Your task to perform on an android device: uninstall "PUBG MOBILE" Image 0: 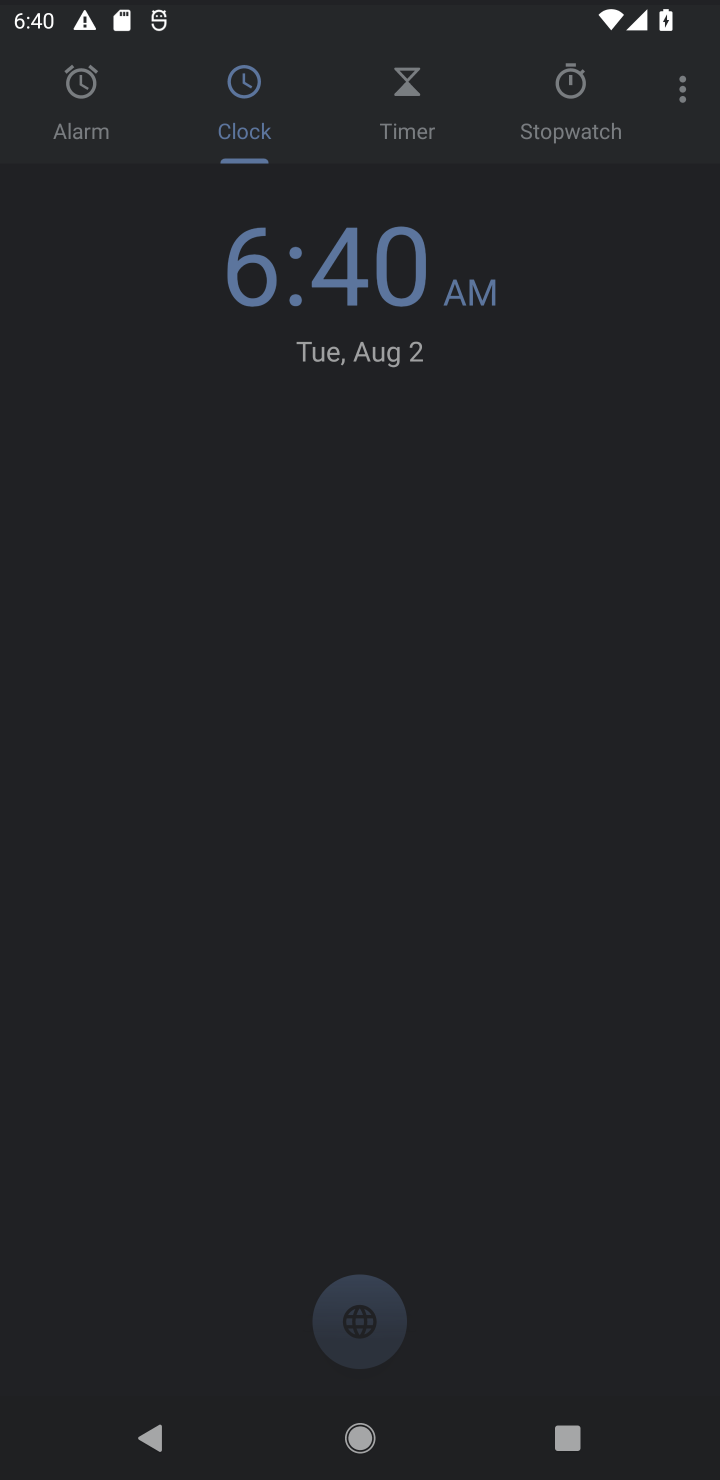
Step 0: click (72, 77)
Your task to perform on an android device: uninstall "PUBG MOBILE" Image 1: 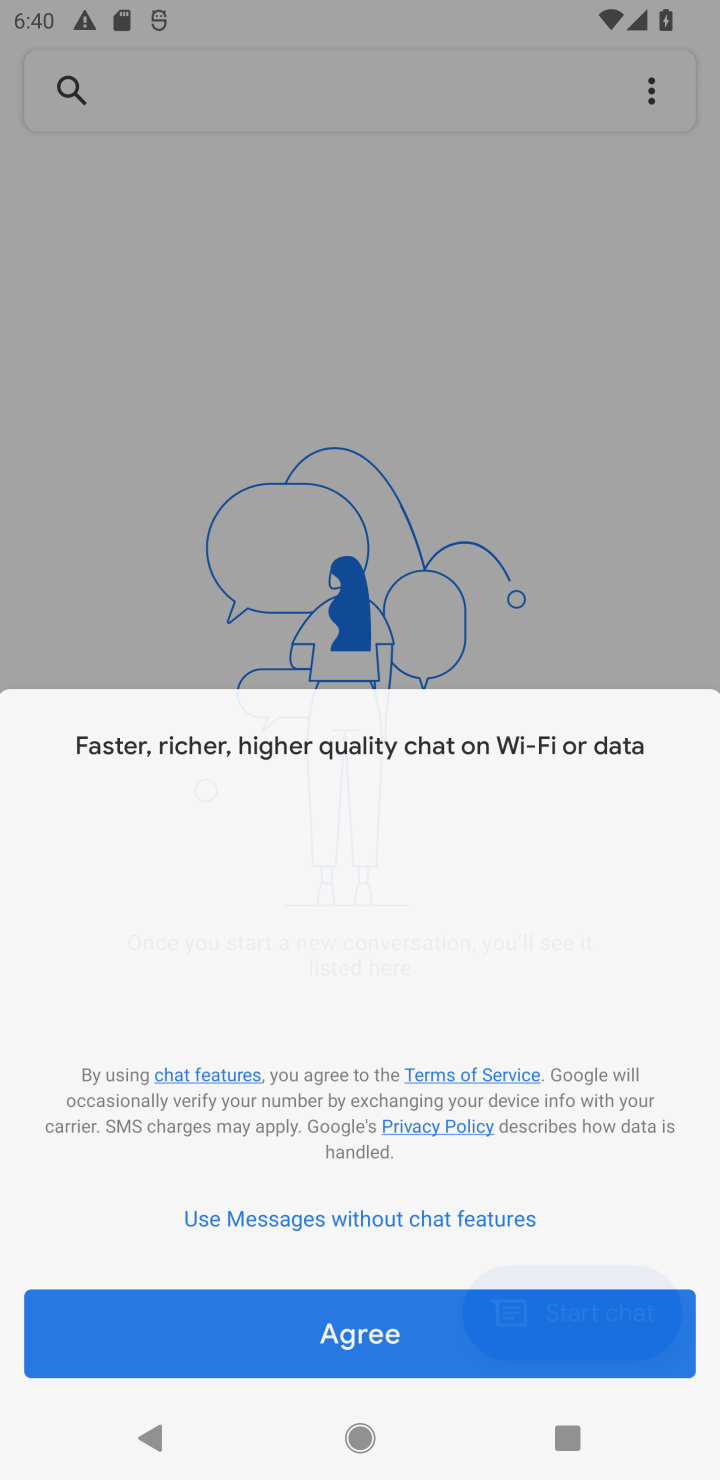
Step 1: press back button
Your task to perform on an android device: uninstall "PUBG MOBILE" Image 2: 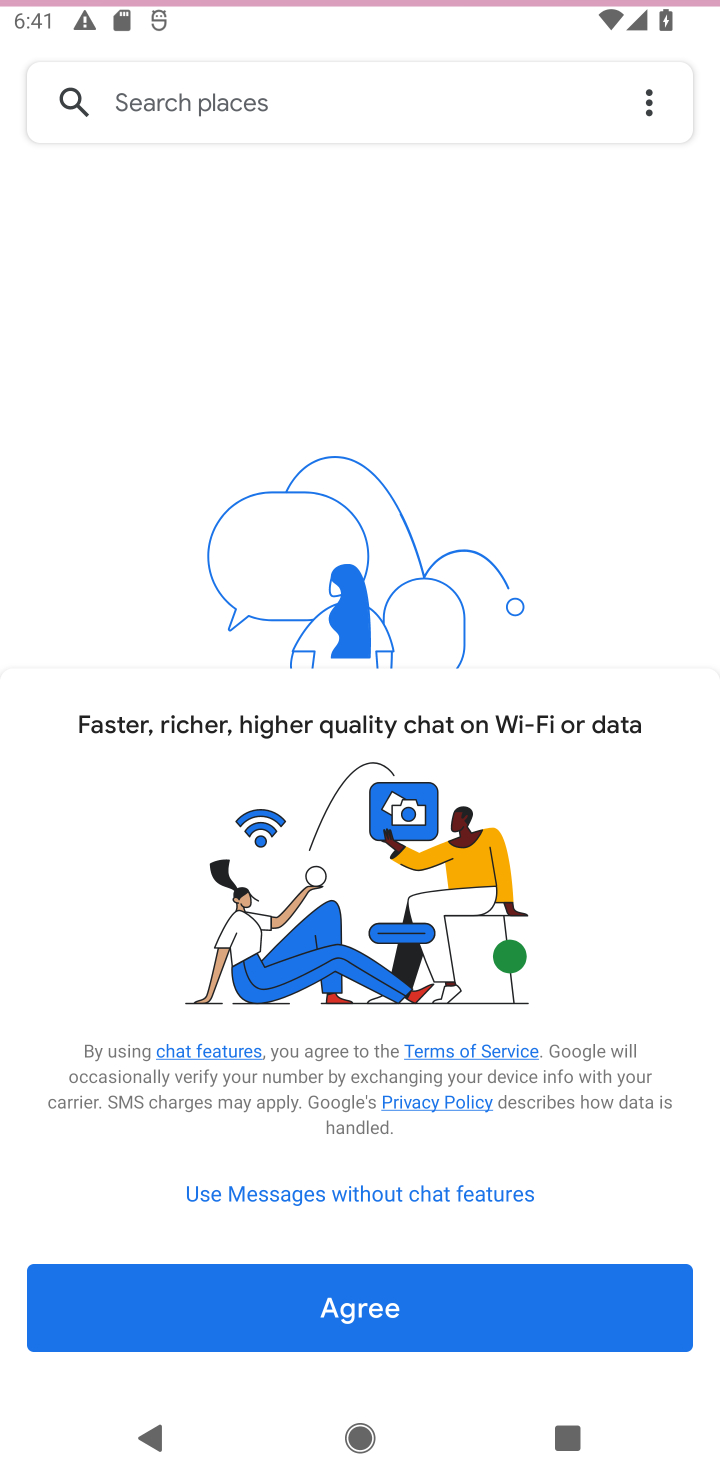
Step 2: press back button
Your task to perform on an android device: uninstall "PUBG MOBILE" Image 3: 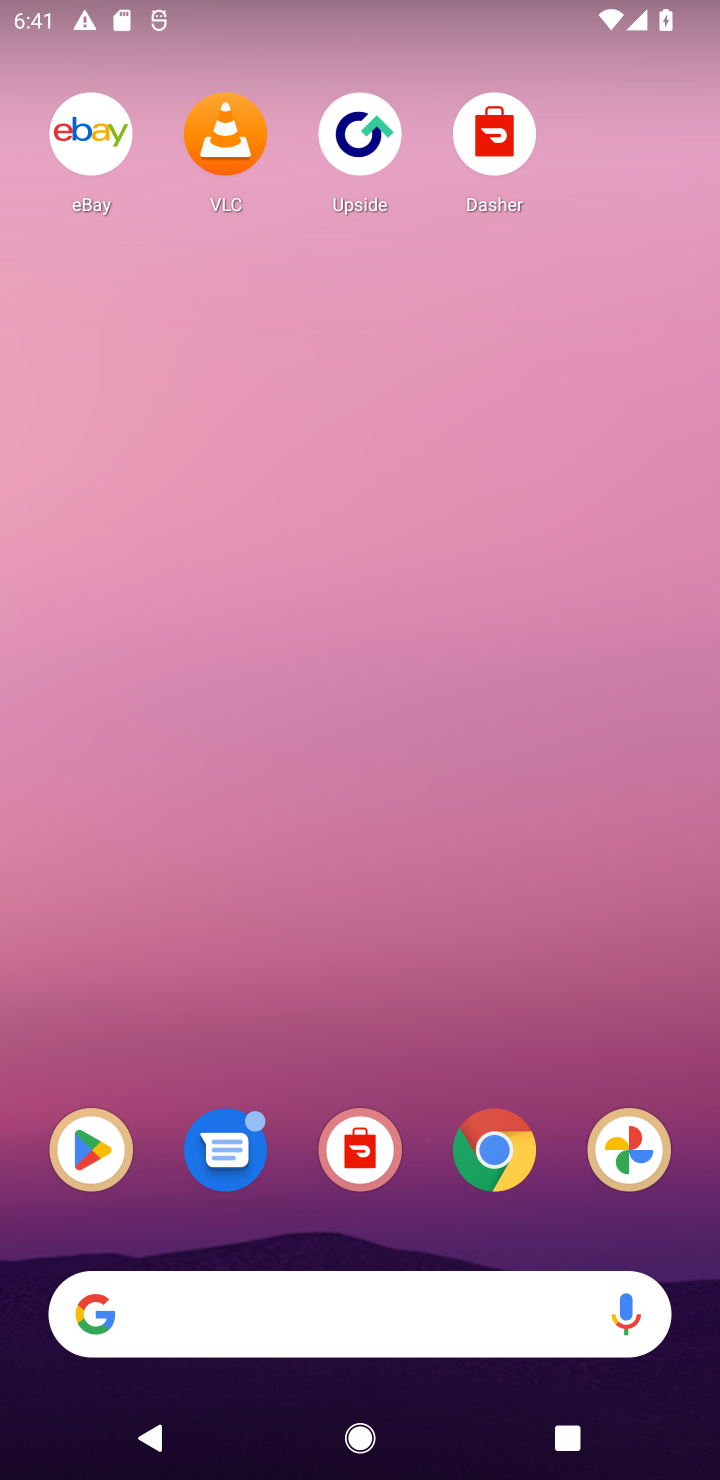
Step 3: press back button
Your task to perform on an android device: uninstall "PUBG MOBILE" Image 4: 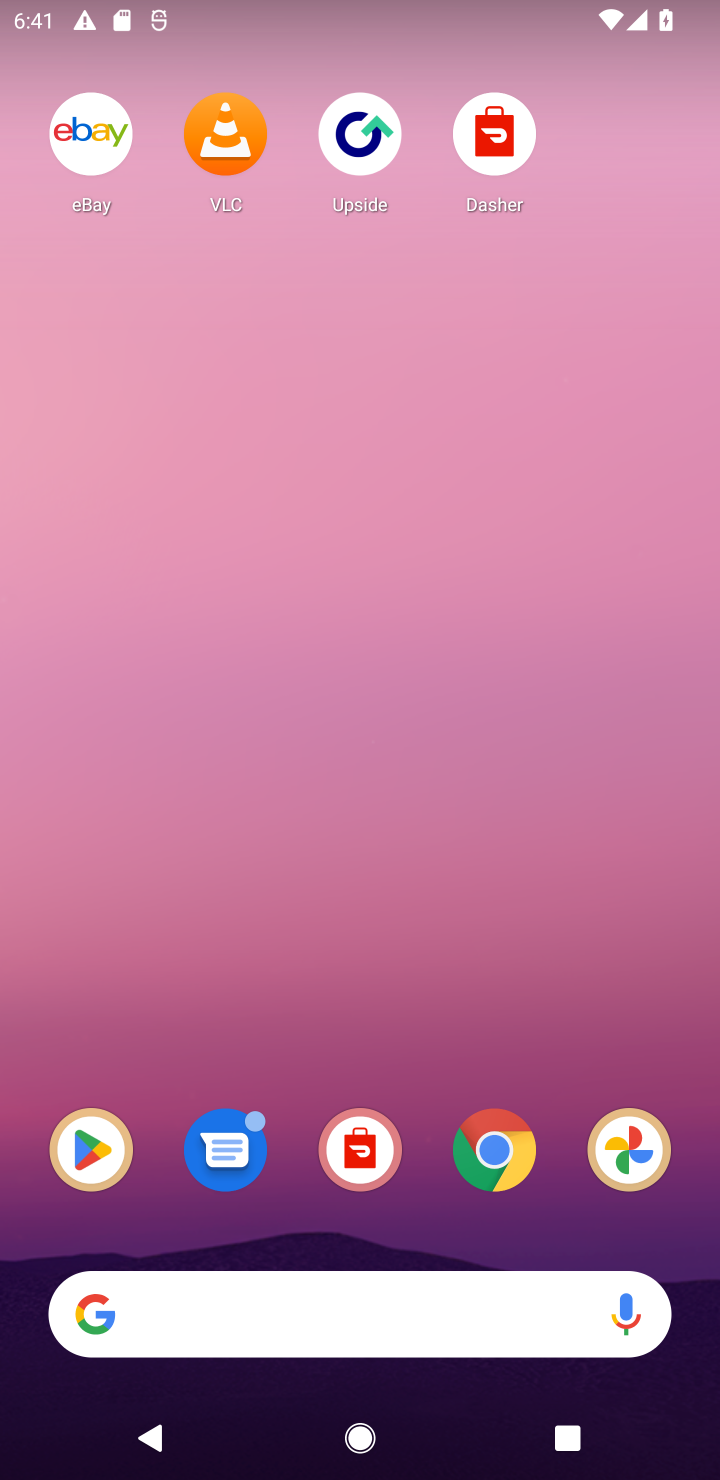
Step 4: click (107, 1178)
Your task to perform on an android device: uninstall "PUBG MOBILE" Image 5: 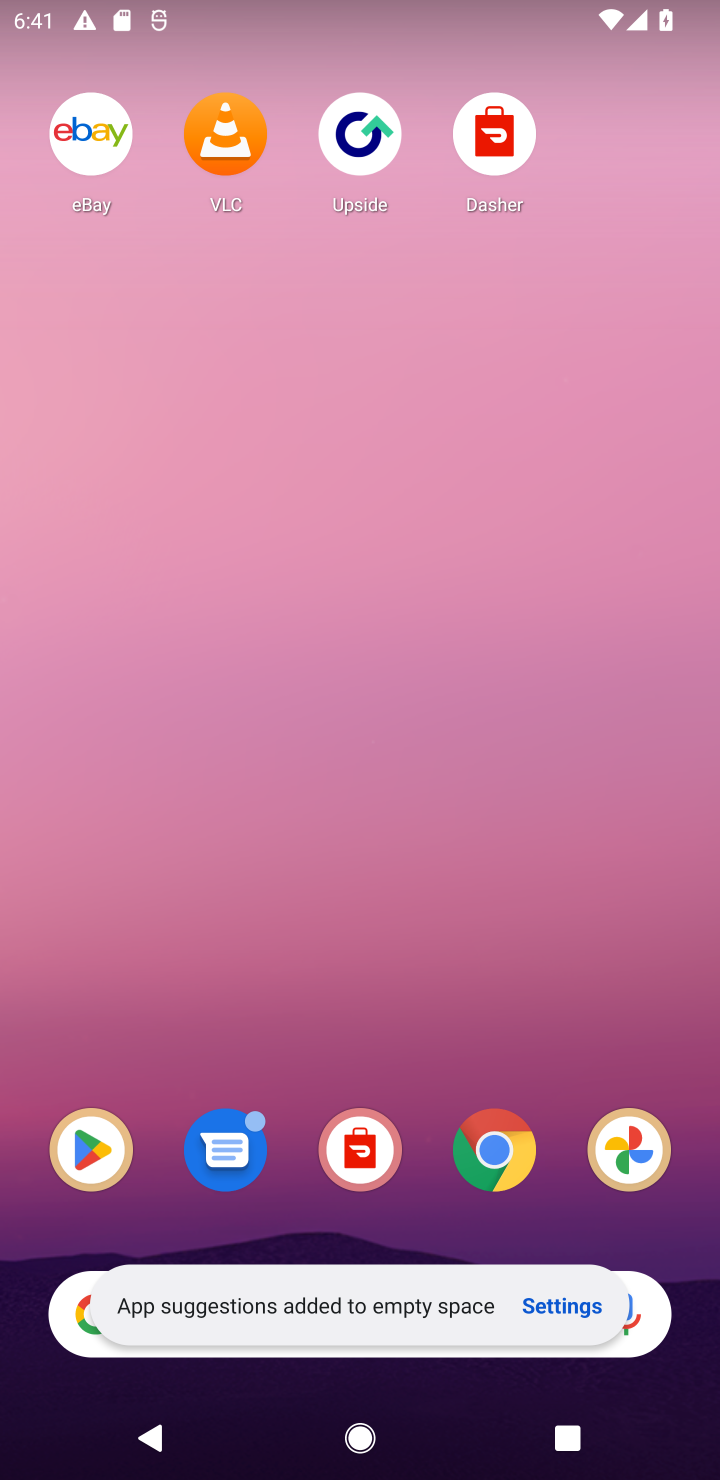
Step 5: click (93, 1159)
Your task to perform on an android device: uninstall "PUBG MOBILE" Image 6: 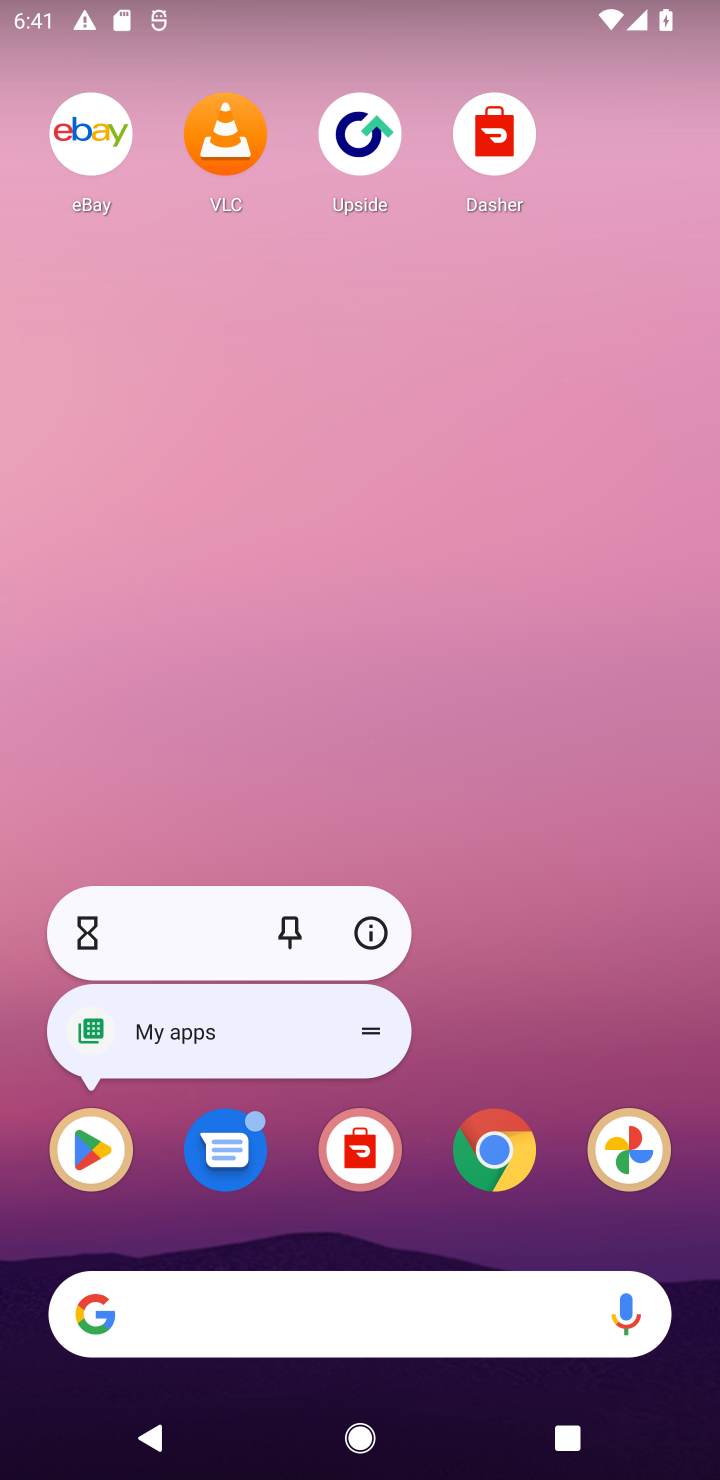
Step 6: click (92, 1157)
Your task to perform on an android device: uninstall "PUBG MOBILE" Image 7: 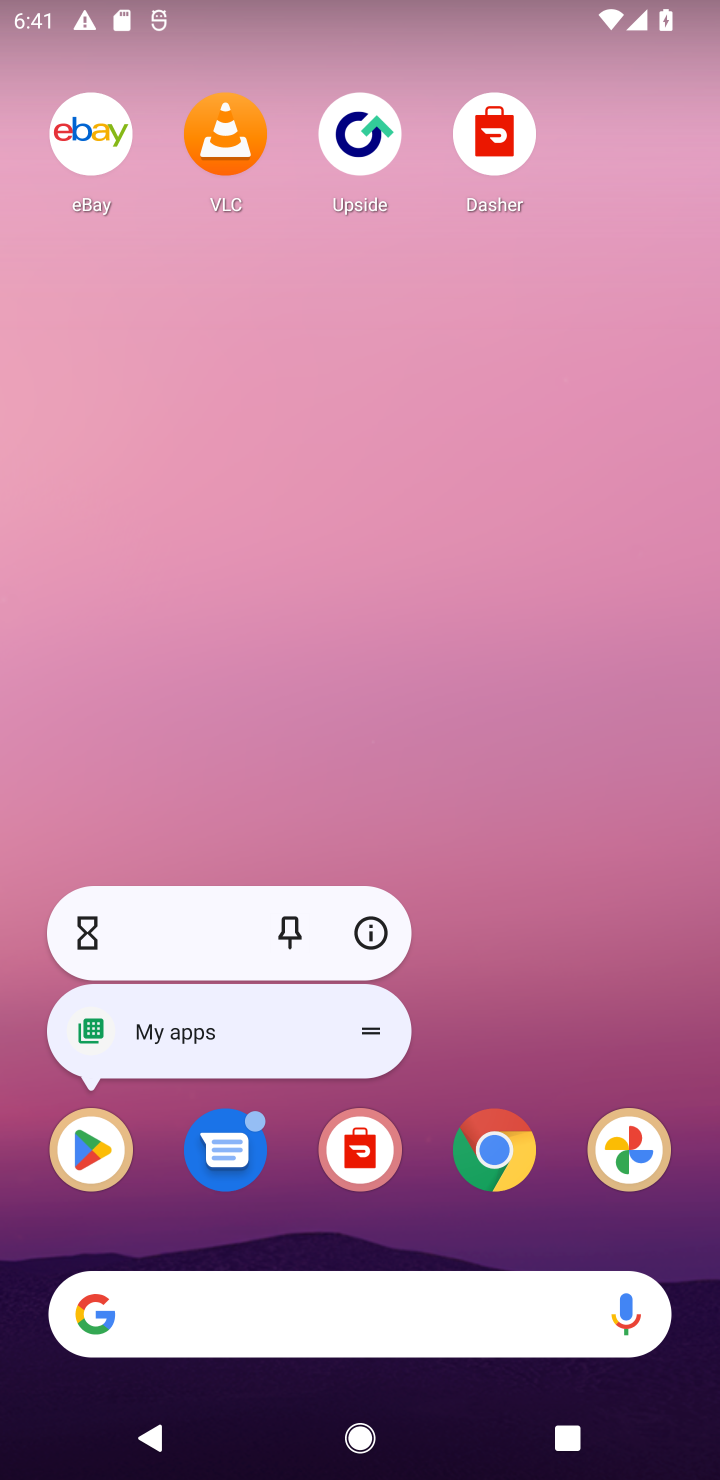
Step 7: click (88, 1150)
Your task to perform on an android device: uninstall "PUBG MOBILE" Image 8: 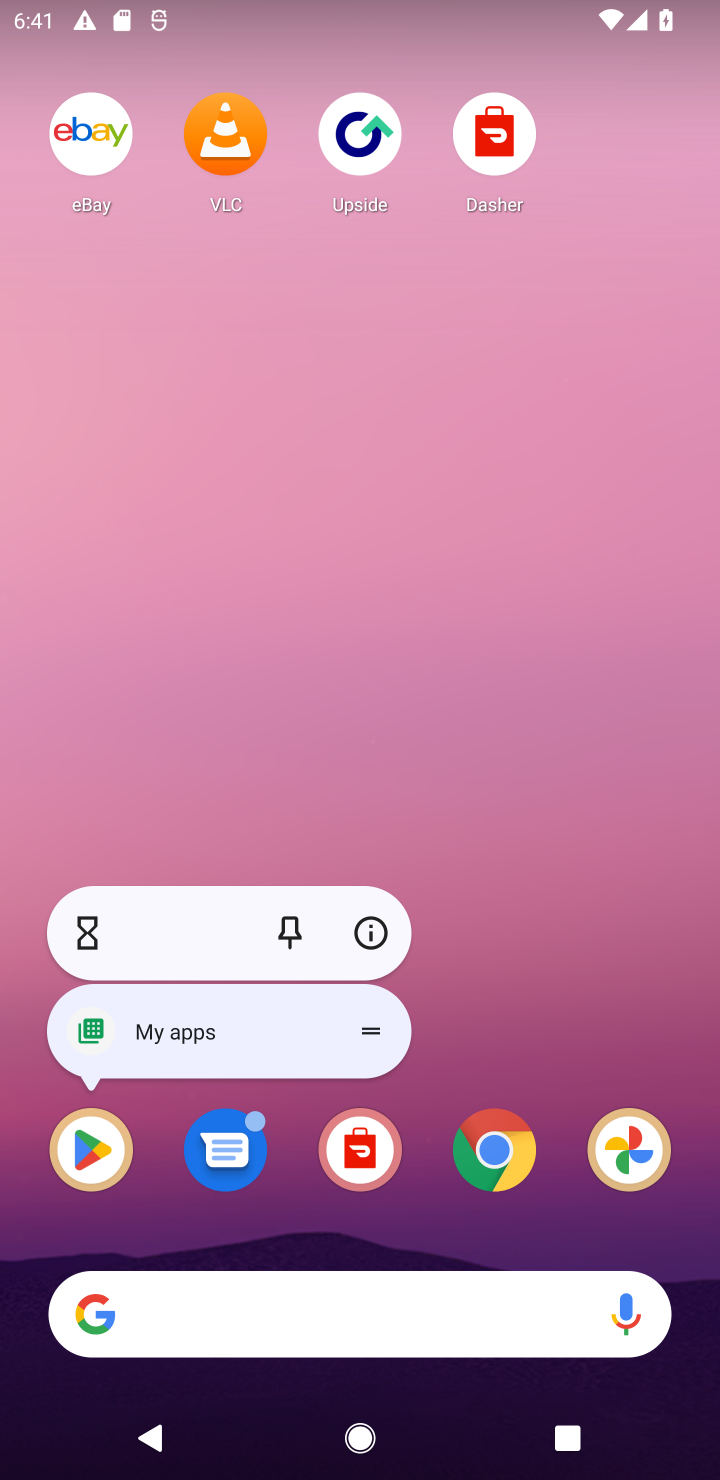
Step 8: click (80, 1147)
Your task to perform on an android device: uninstall "PUBG MOBILE" Image 9: 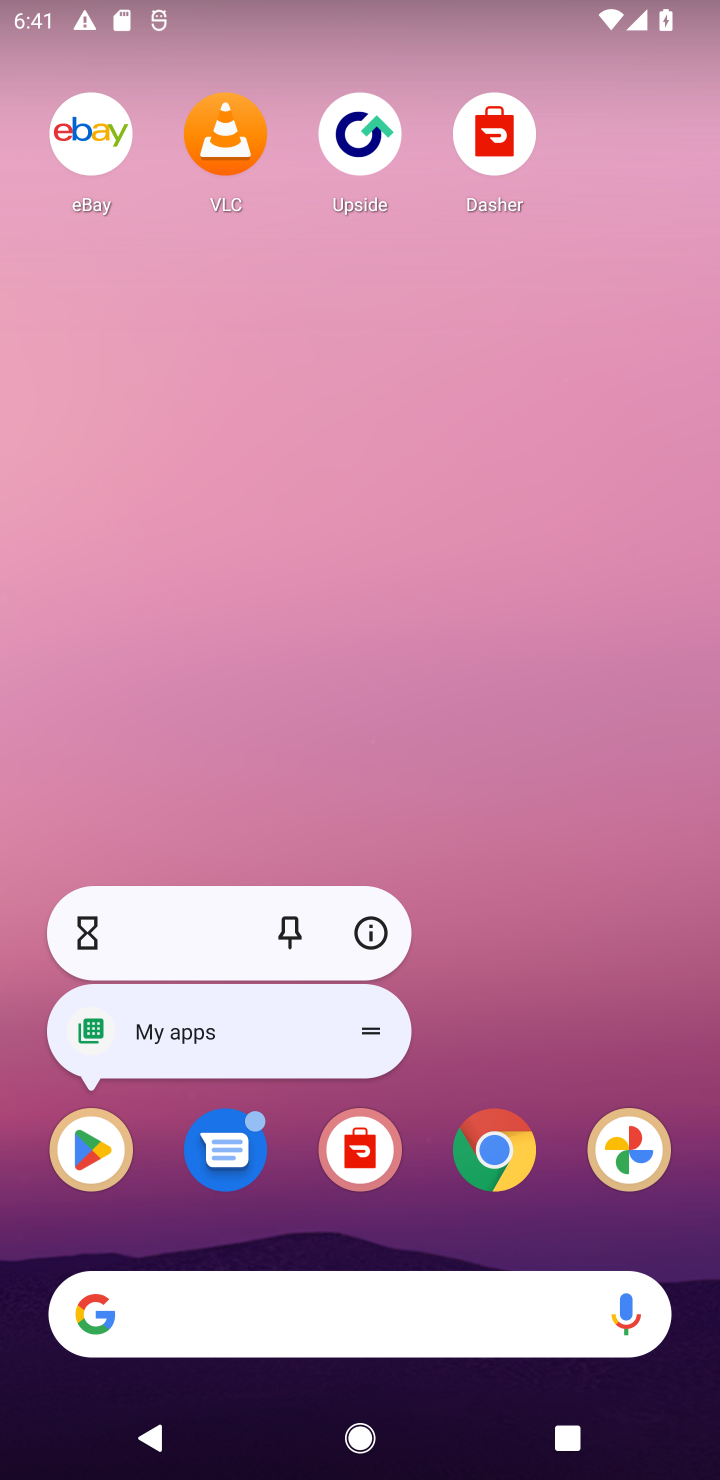
Step 9: click (80, 1147)
Your task to perform on an android device: uninstall "PUBG MOBILE" Image 10: 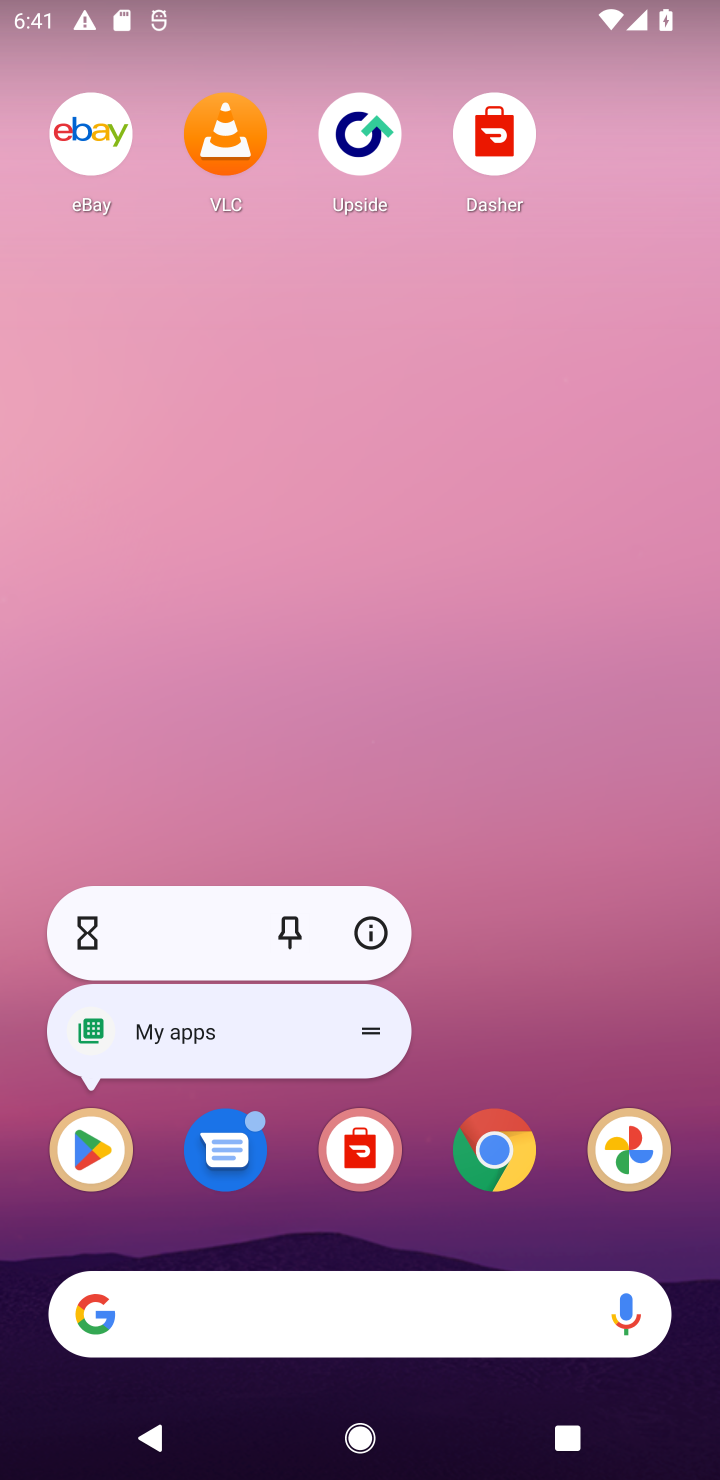
Step 10: click (80, 1147)
Your task to perform on an android device: uninstall "PUBG MOBILE" Image 11: 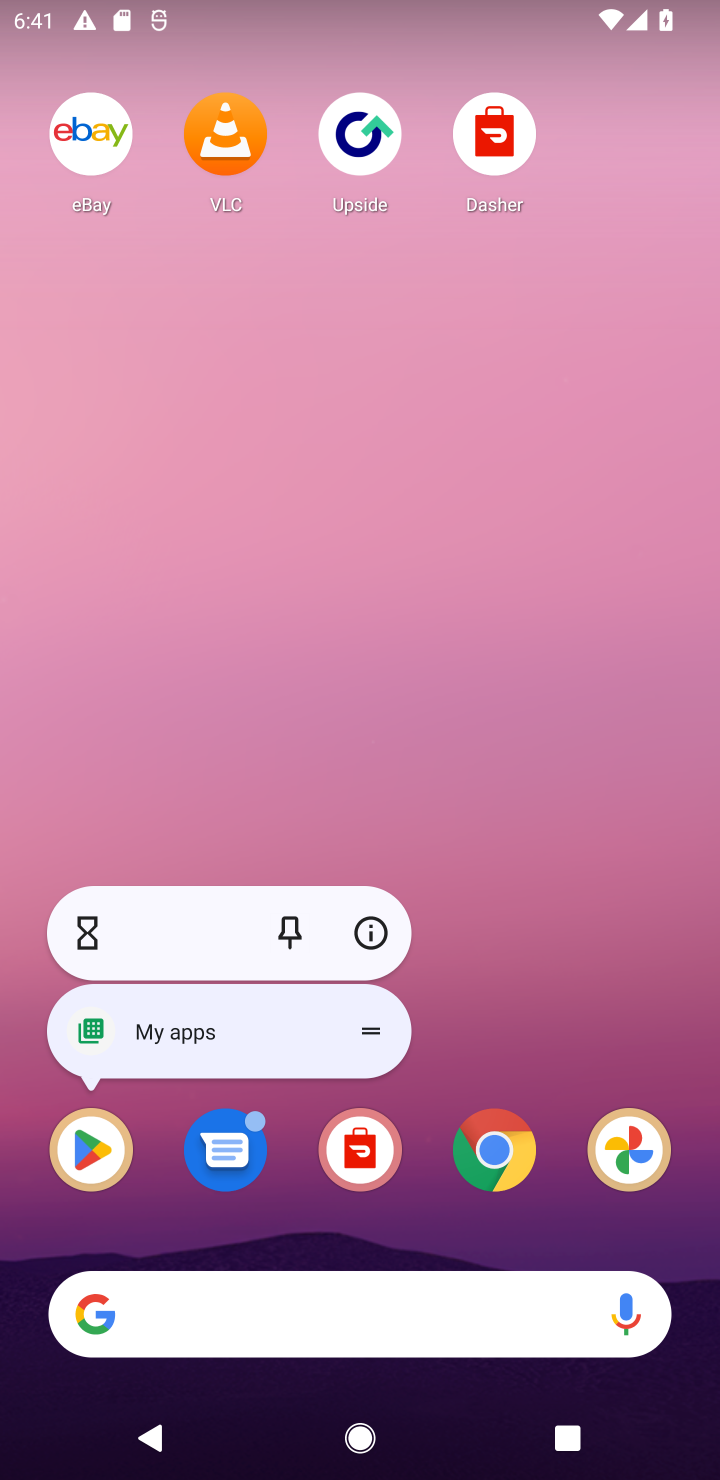
Step 11: click (78, 1149)
Your task to perform on an android device: uninstall "PUBG MOBILE" Image 12: 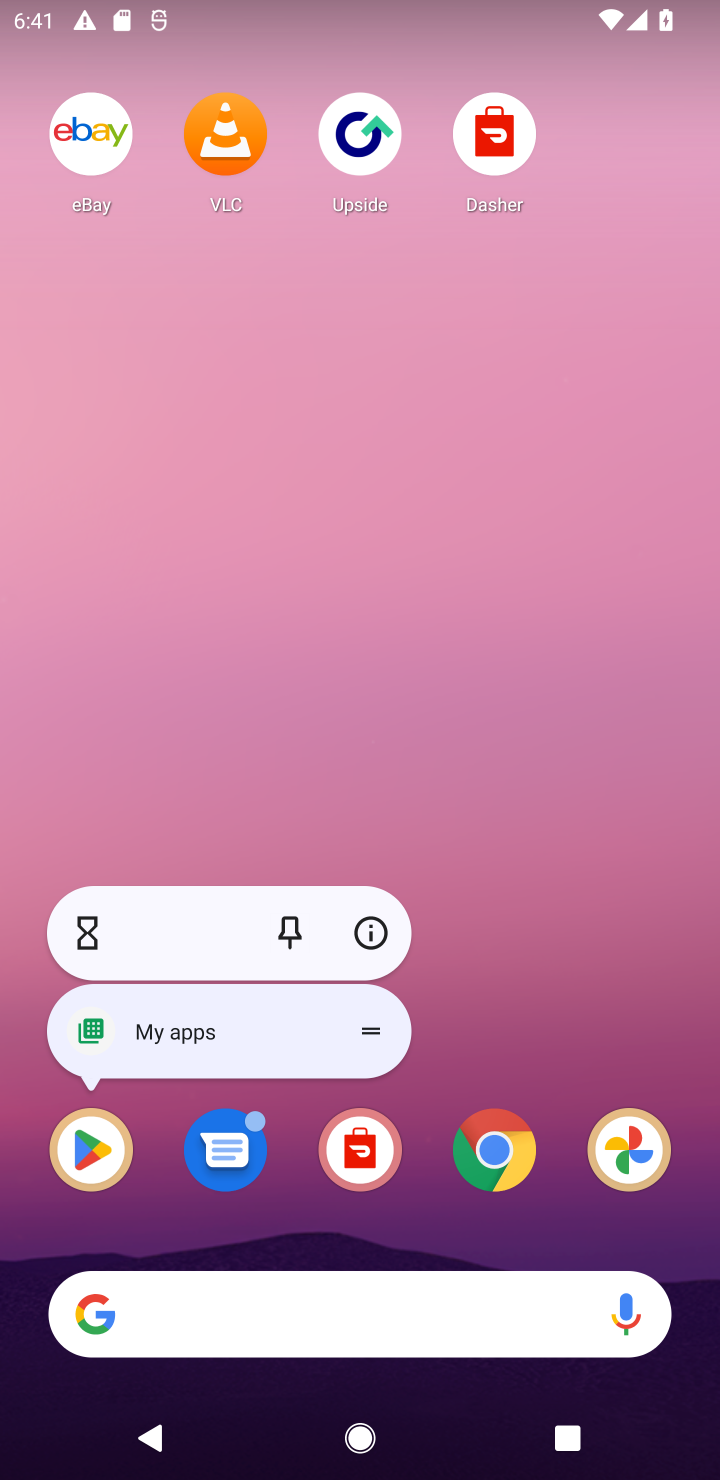
Step 12: click (47, 1127)
Your task to perform on an android device: uninstall "PUBG MOBILE" Image 13: 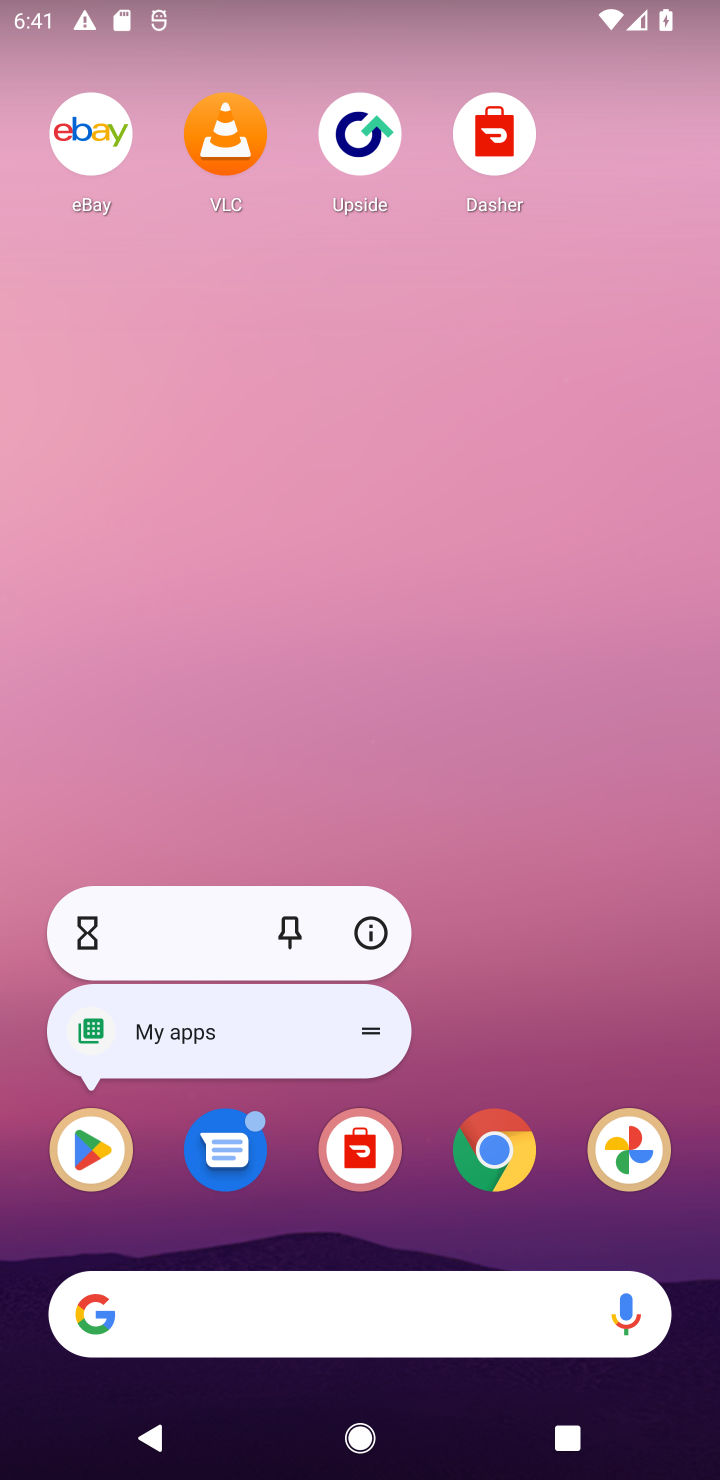
Step 13: click (71, 1145)
Your task to perform on an android device: uninstall "PUBG MOBILE" Image 14: 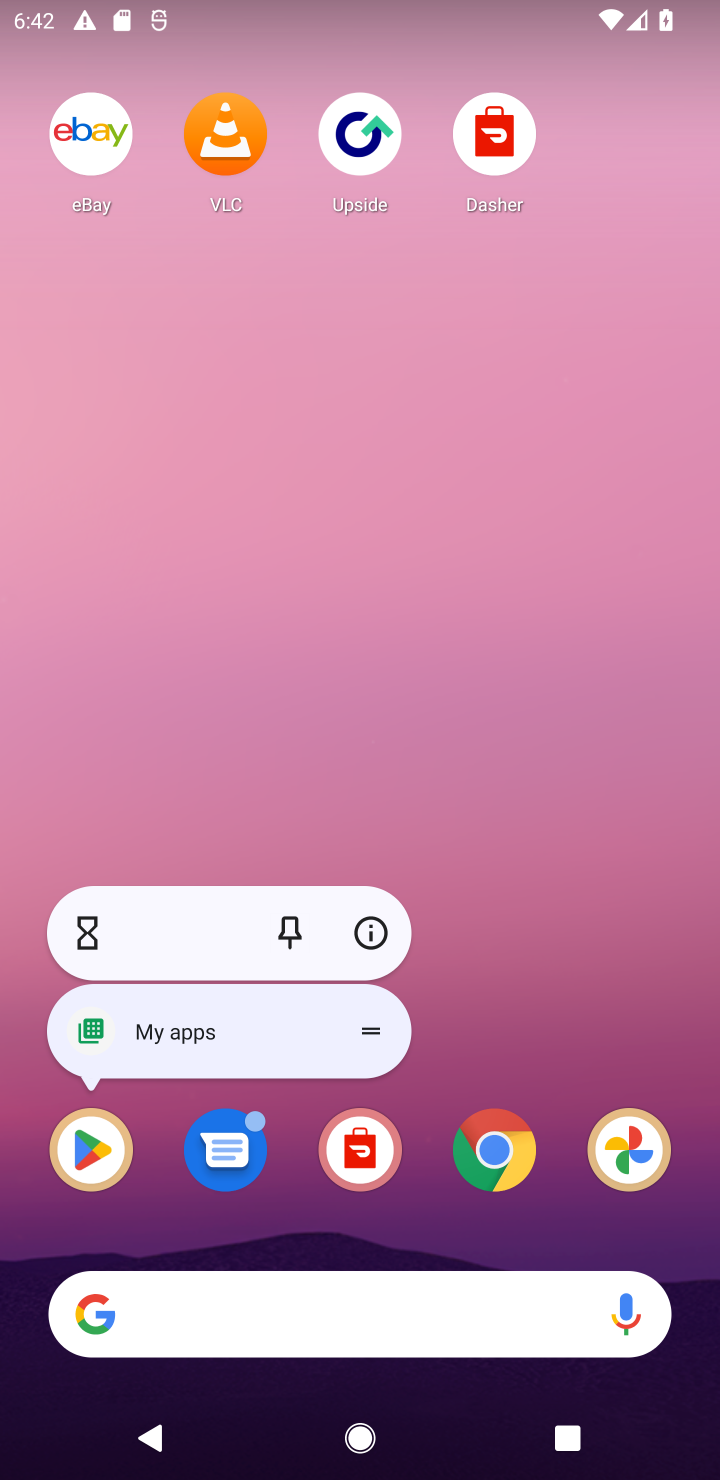
Step 14: click (60, 1149)
Your task to perform on an android device: uninstall "PUBG MOBILE" Image 15: 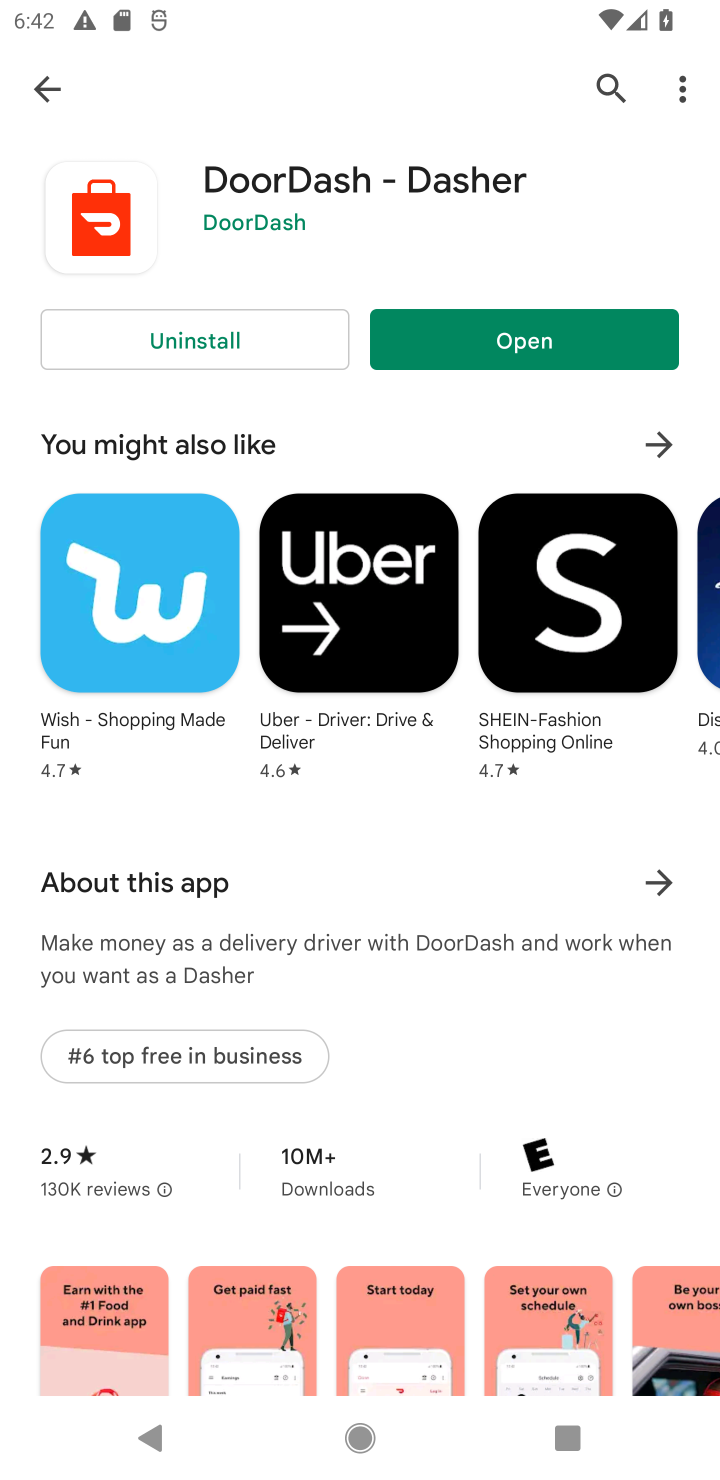
Step 15: click (59, 110)
Your task to perform on an android device: uninstall "PUBG MOBILE" Image 16: 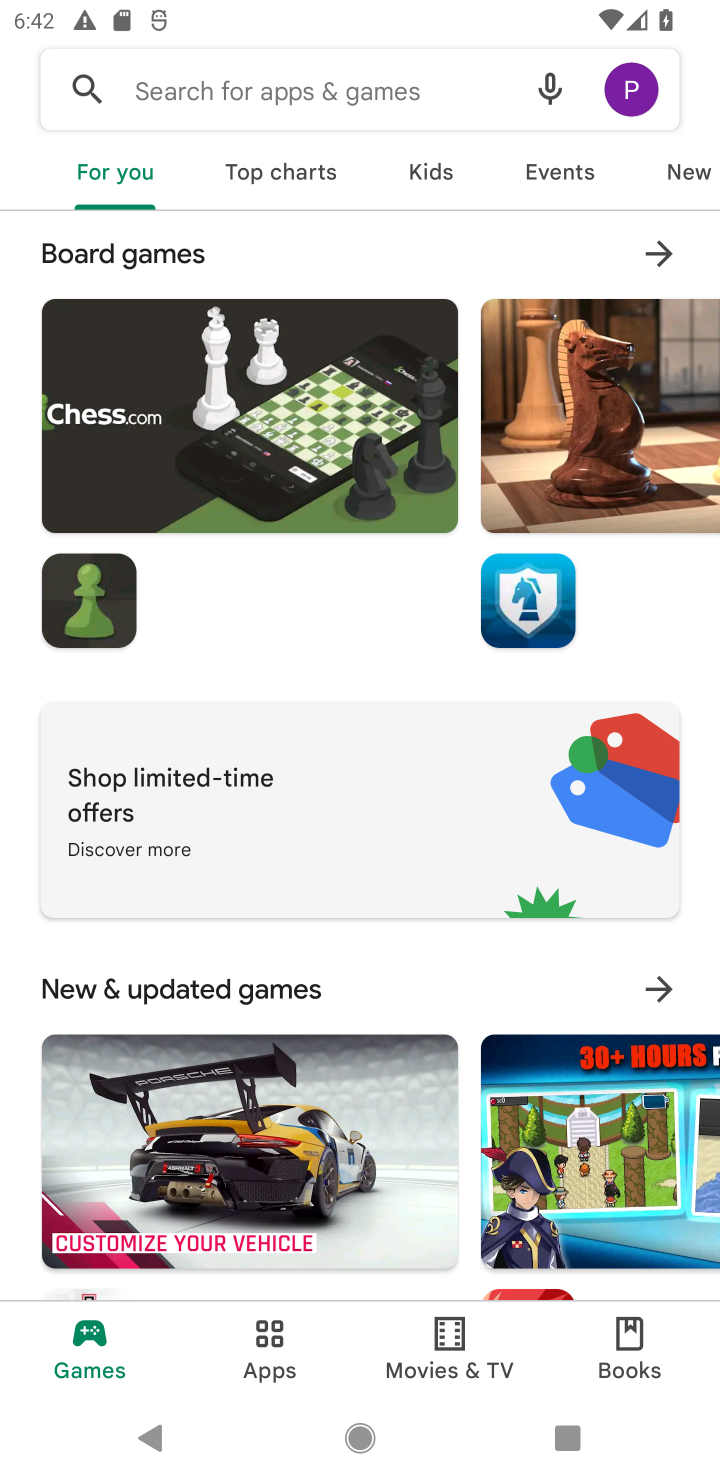
Step 16: click (240, 77)
Your task to perform on an android device: uninstall "PUBG MOBILE" Image 17: 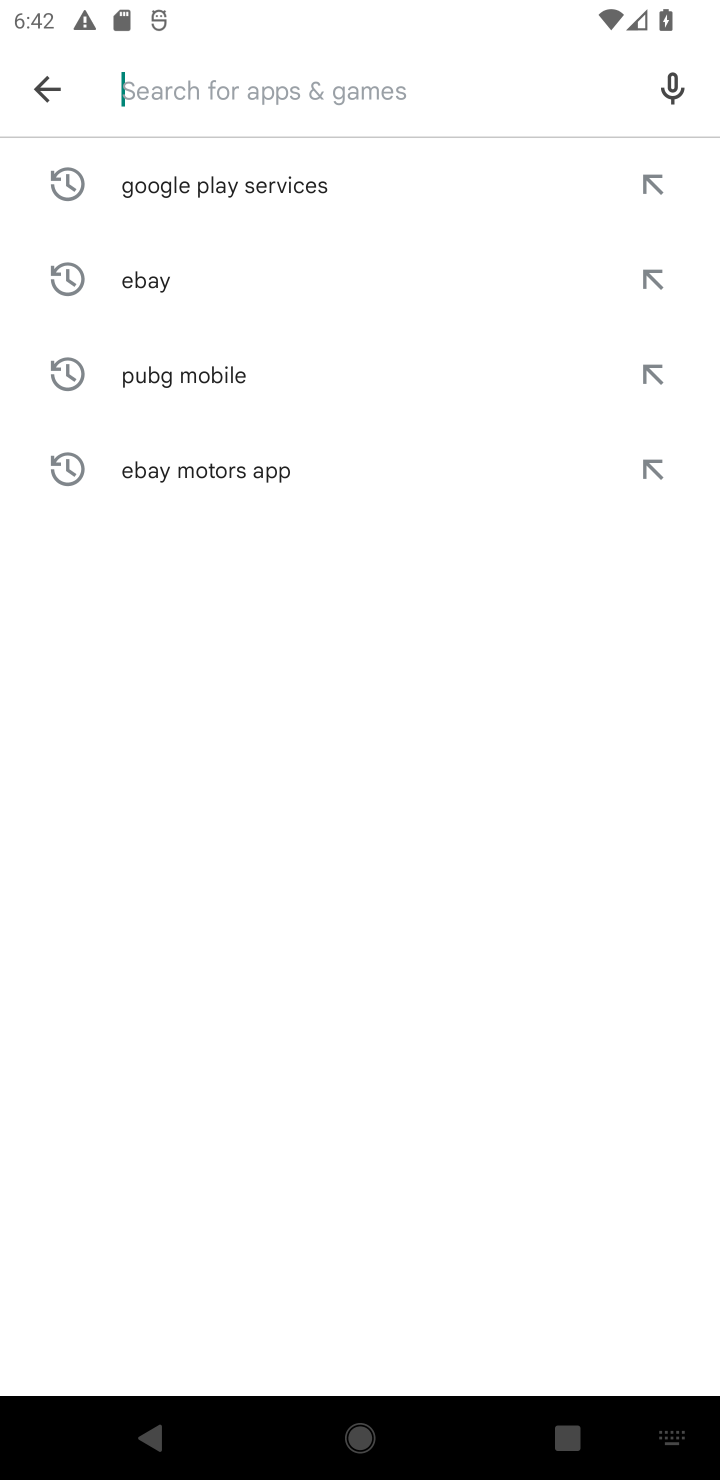
Step 17: type "PUBG MOBILE"
Your task to perform on an android device: uninstall "PUBG MOBILE" Image 18: 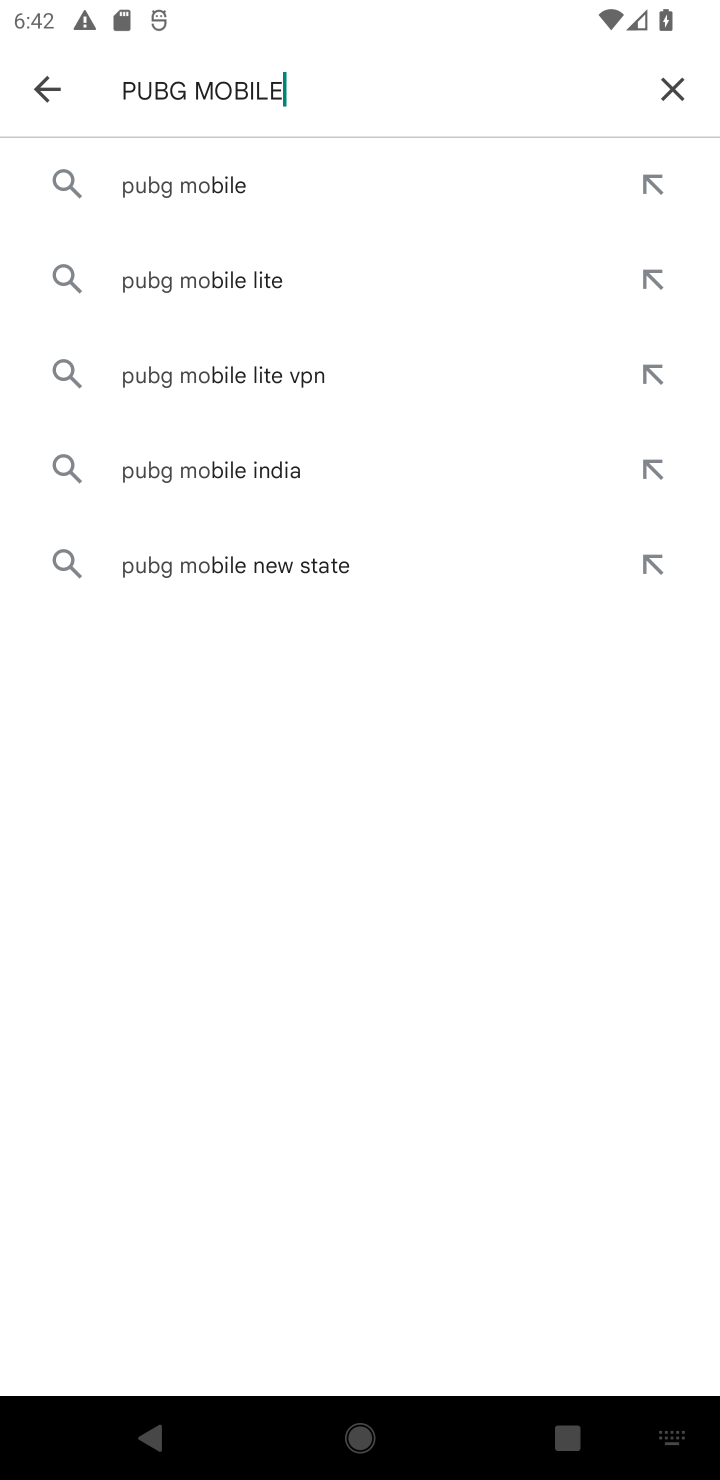
Step 18: type ""
Your task to perform on an android device: uninstall "PUBG MOBILE" Image 19: 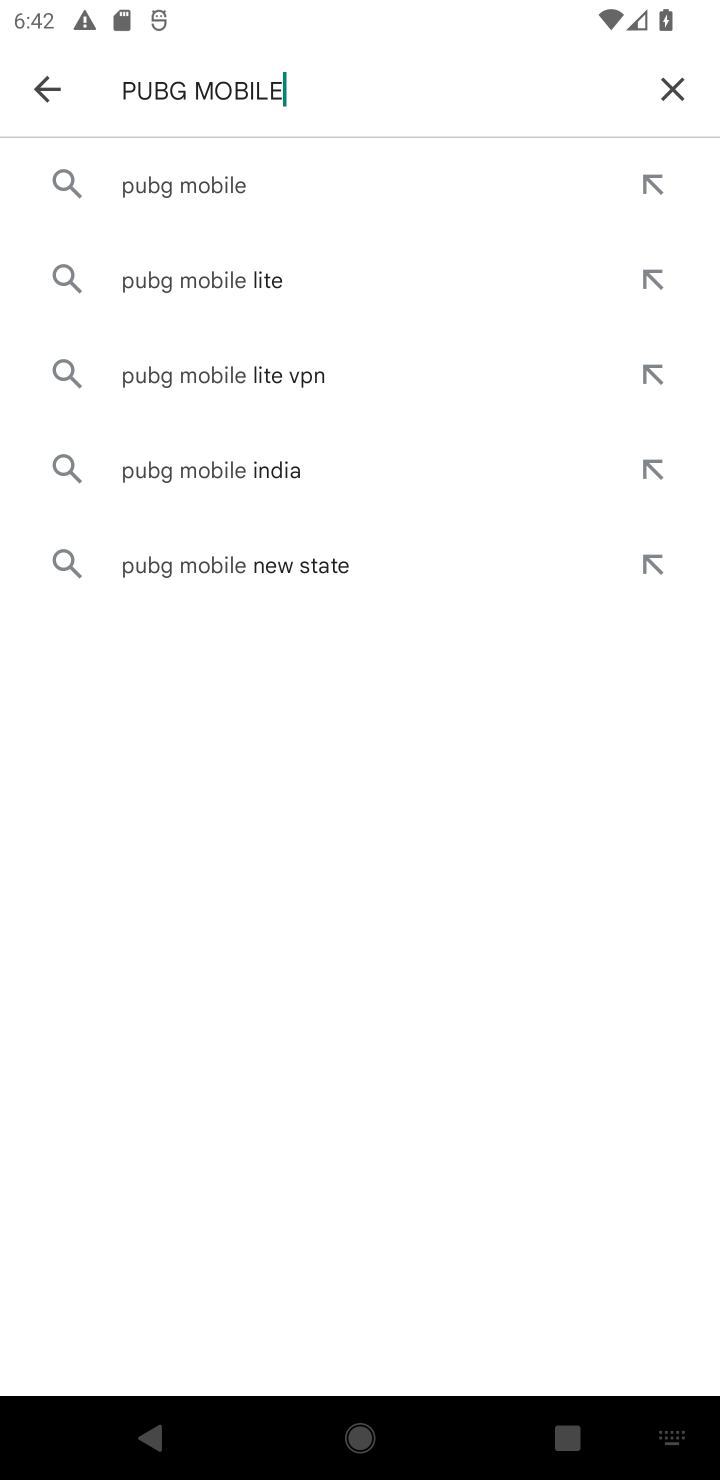
Step 19: click (190, 177)
Your task to perform on an android device: uninstall "PUBG MOBILE" Image 20: 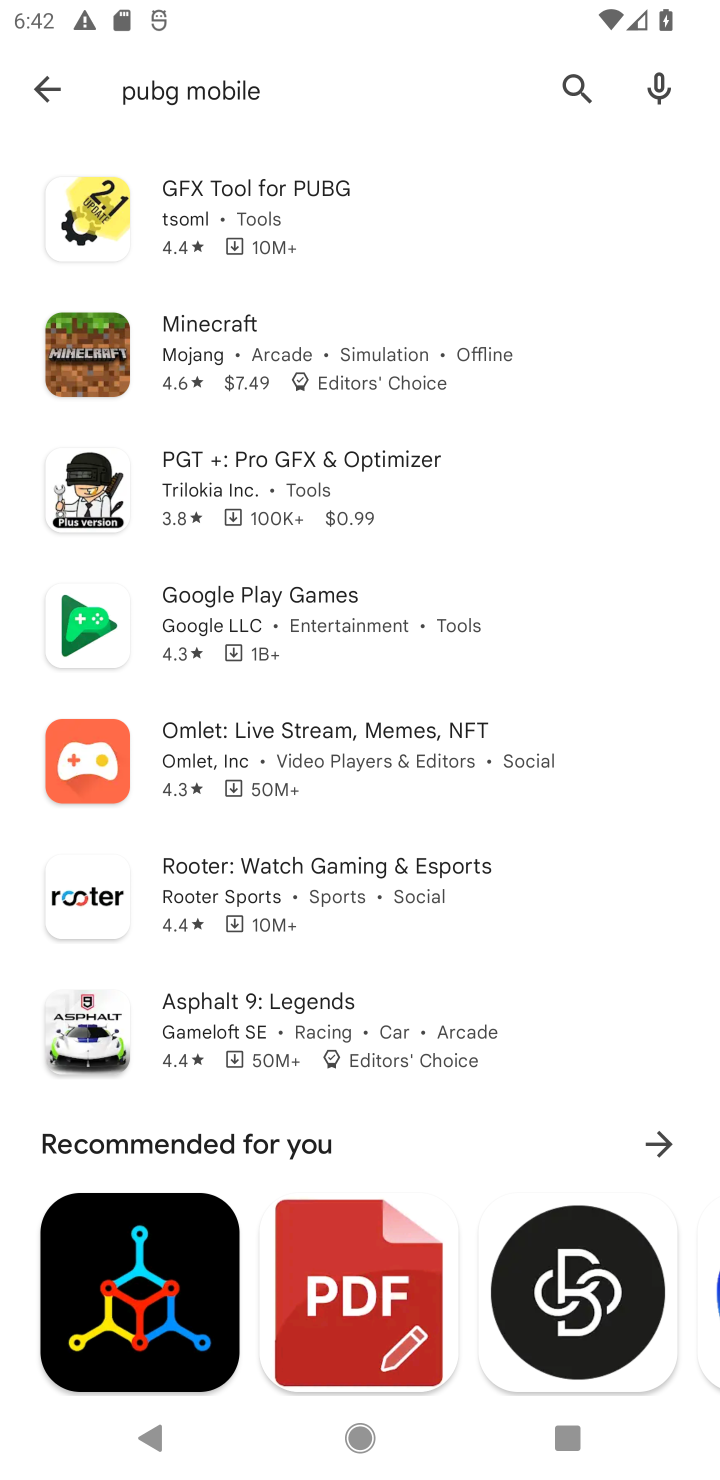
Step 20: task complete